Your task to perform on an android device: clear all cookies in the chrome app Image 0: 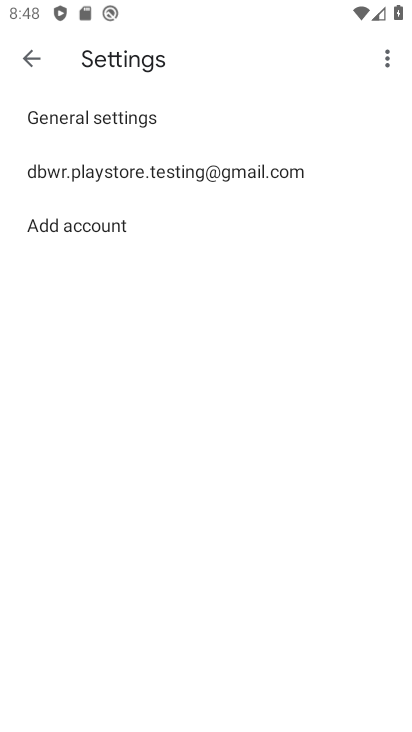
Step 0: press home button
Your task to perform on an android device: clear all cookies in the chrome app Image 1: 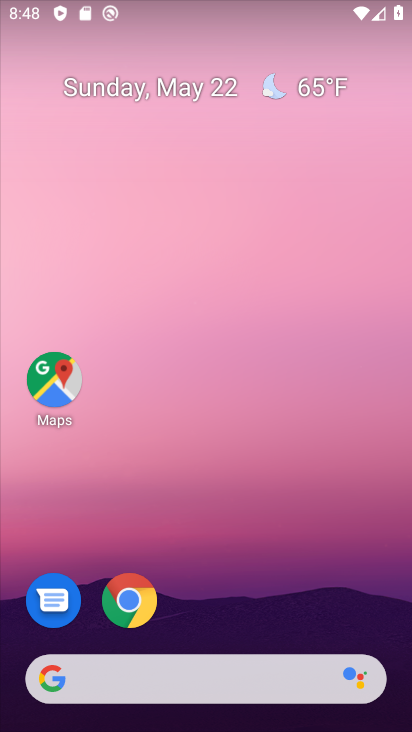
Step 1: click (131, 609)
Your task to perform on an android device: clear all cookies in the chrome app Image 2: 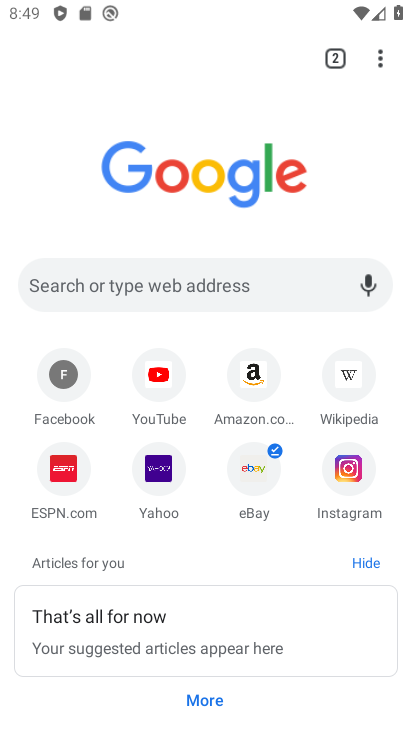
Step 2: click (377, 56)
Your task to perform on an android device: clear all cookies in the chrome app Image 3: 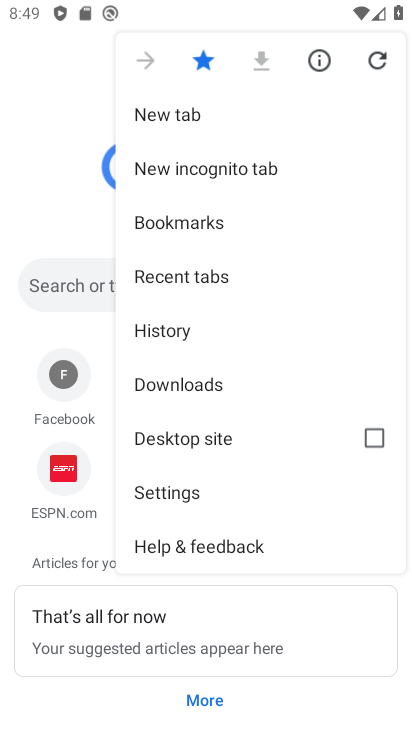
Step 3: click (157, 328)
Your task to perform on an android device: clear all cookies in the chrome app Image 4: 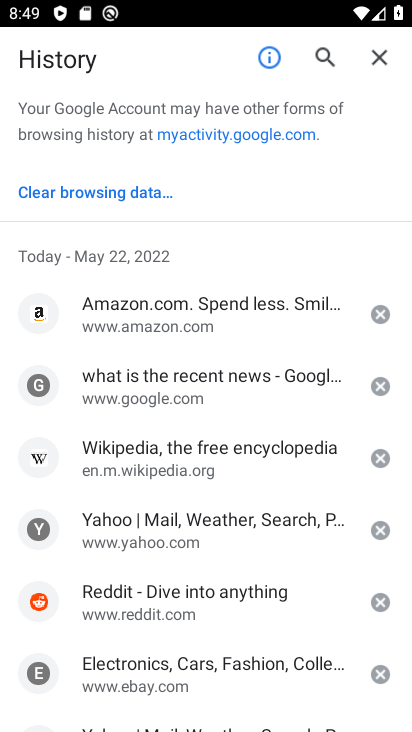
Step 4: click (141, 208)
Your task to perform on an android device: clear all cookies in the chrome app Image 5: 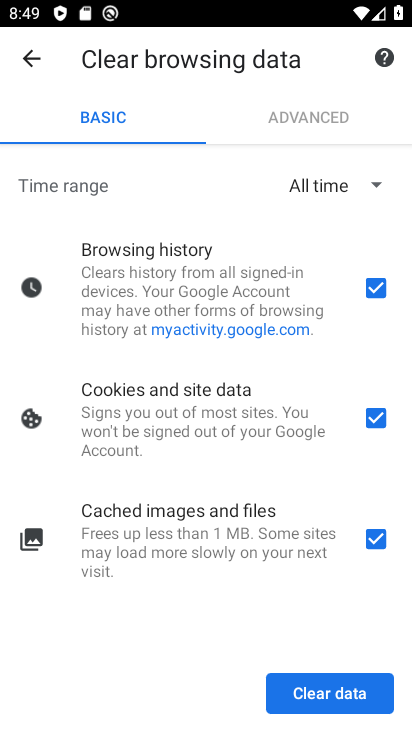
Step 5: click (369, 282)
Your task to perform on an android device: clear all cookies in the chrome app Image 6: 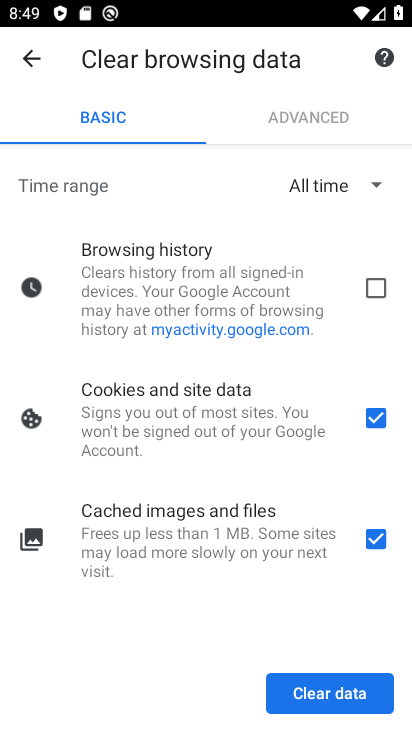
Step 6: click (376, 554)
Your task to perform on an android device: clear all cookies in the chrome app Image 7: 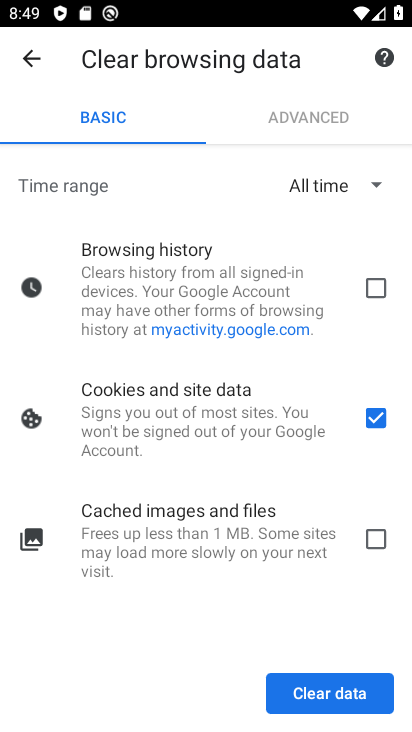
Step 7: click (327, 686)
Your task to perform on an android device: clear all cookies in the chrome app Image 8: 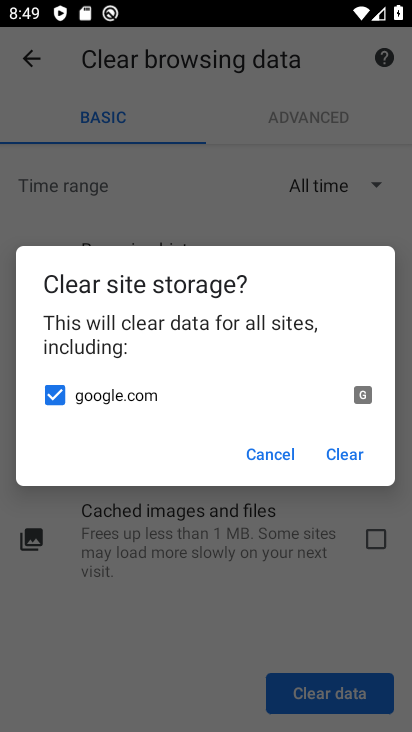
Step 8: click (344, 465)
Your task to perform on an android device: clear all cookies in the chrome app Image 9: 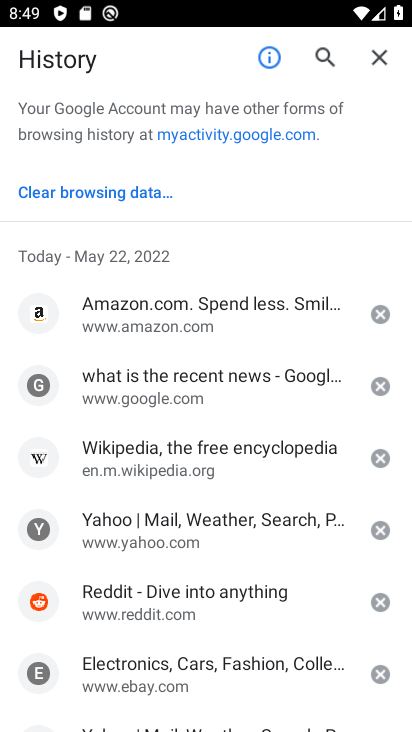
Step 9: task complete